Your task to perform on an android device: visit the assistant section in the google photos Image 0: 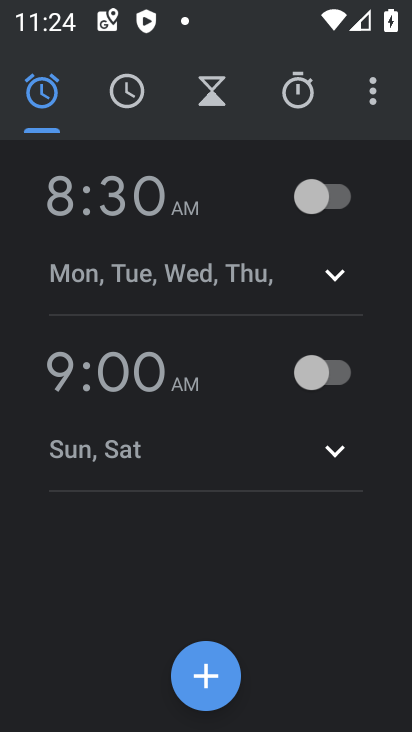
Step 0: press home button
Your task to perform on an android device: visit the assistant section in the google photos Image 1: 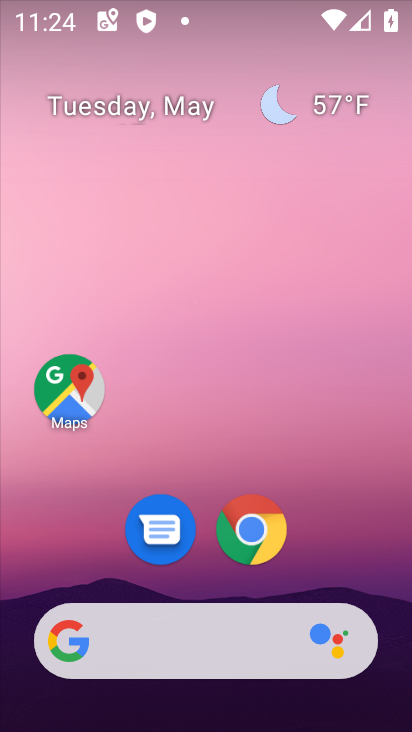
Step 1: drag from (180, 576) to (228, 104)
Your task to perform on an android device: visit the assistant section in the google photos Image 2: 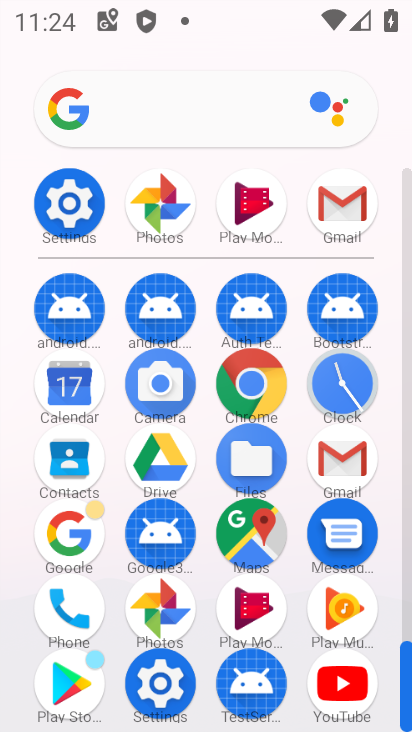
Step 2: click (160, 205)
Your task to perform on an android device: visit the assistant section in the google photos Image 3: 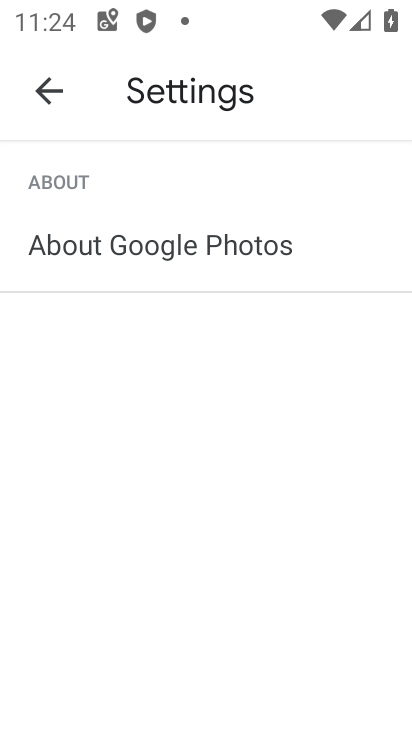
Step 3: click (45, 90)
Your task to perform on an android device: visit the assistant section in the google photos Image 4: 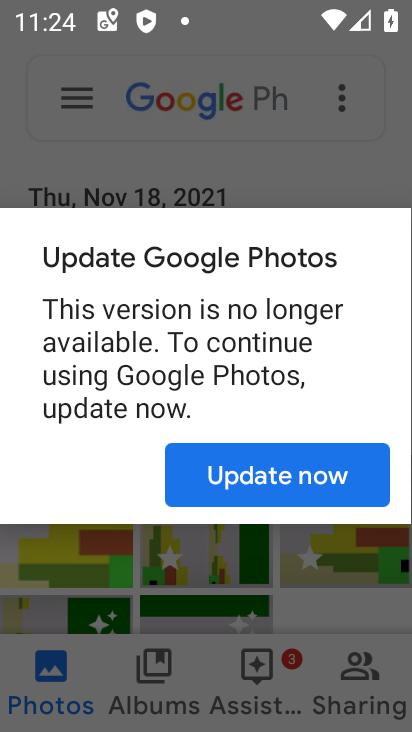
Step 4: click (240, 470)
Your task to perform on an android device: visit the assistant section in the google photos Image 5: 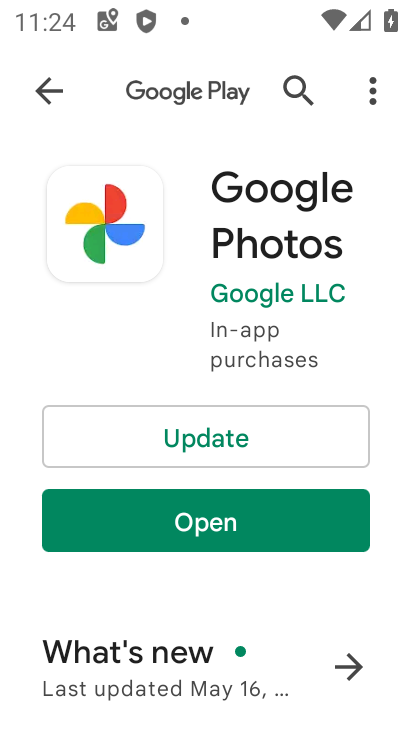
Step 5: click (194, 504)
Your task to perform on an android device: visit the assistant section in the google photos Image 6: 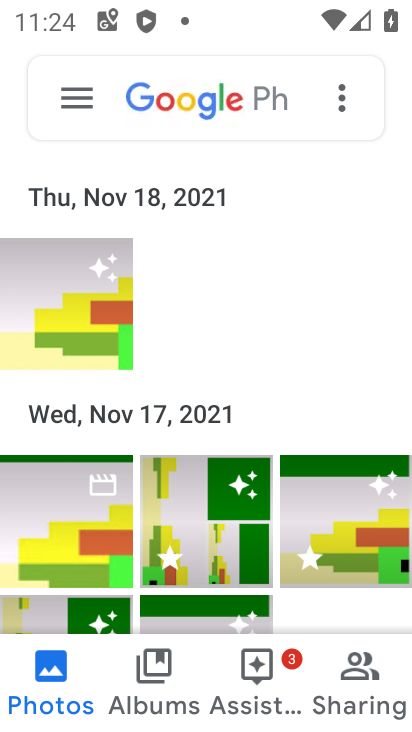
Step 6: click (272, 682)
Your task to perform on an android device: visit the assistant section in the google photos Image 7: 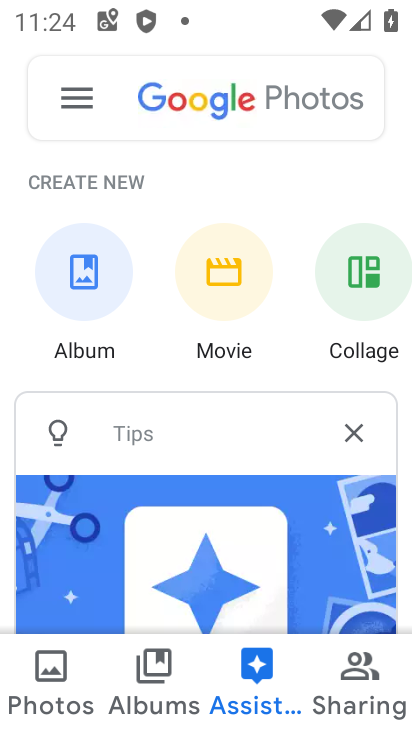
Step 7: task complete